Your task to perform on an android device: check the backup settings in the google photos Image 0: 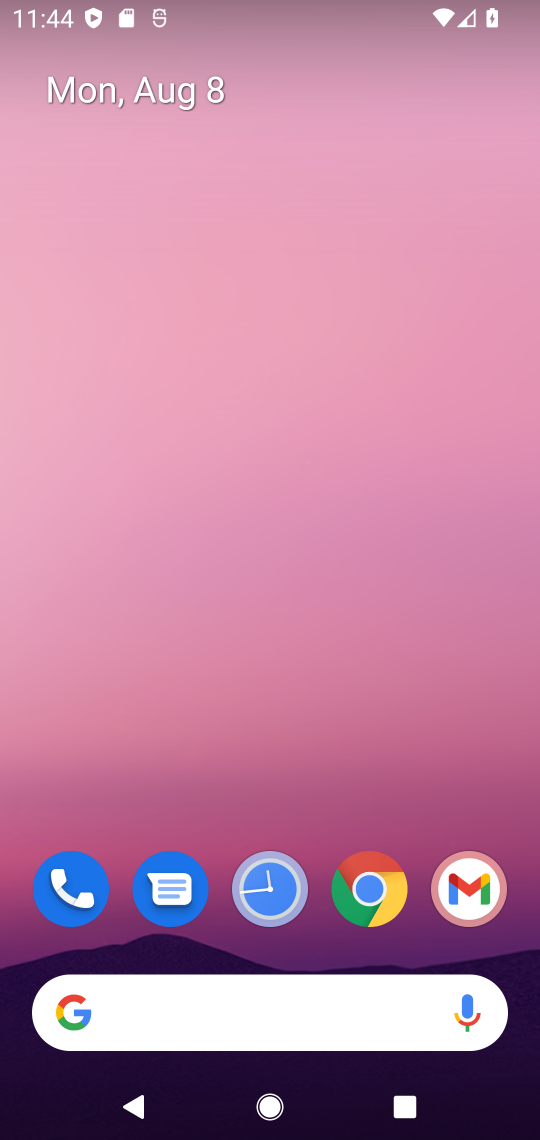
Step 0: drag from (427, 767) to (382, 218)
Your task to perform on an android device: check the backup settings in the google photos Image 1: 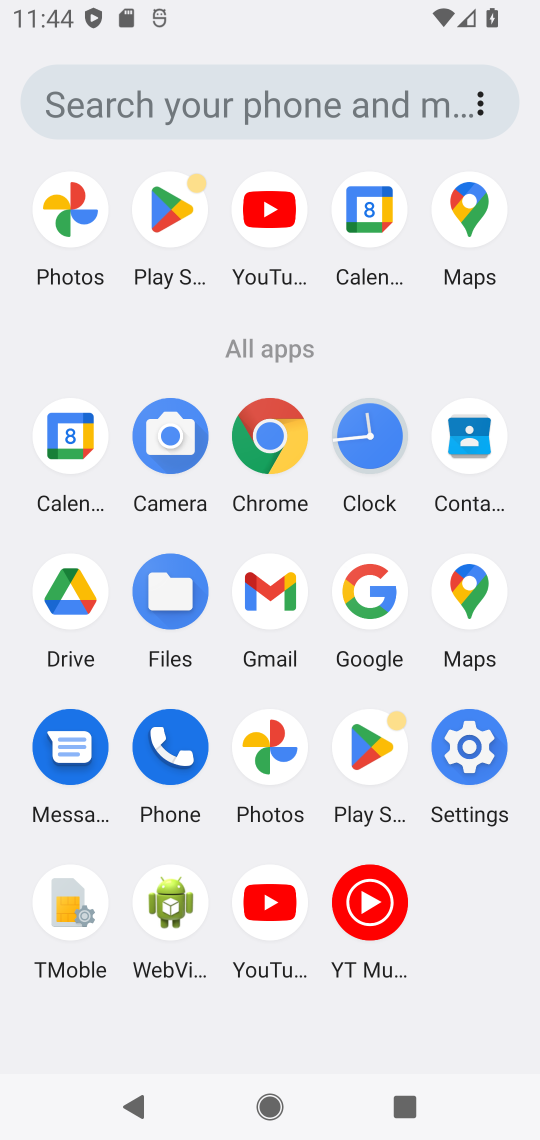
Step 1: click (269, 742)
Your task to perform on an android device: check the backup settings in the google photos Image 2: 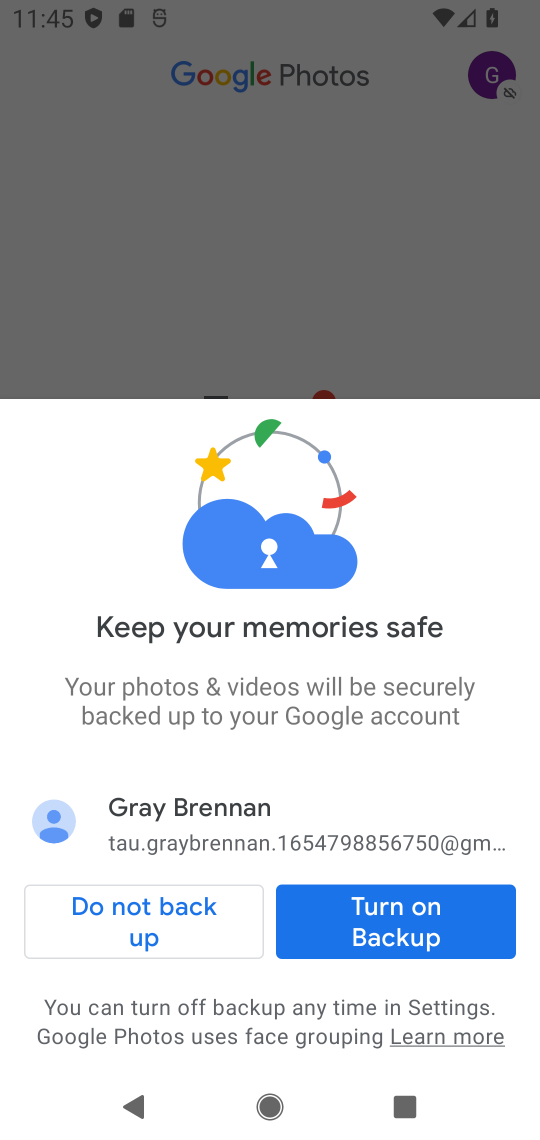
Step 2: click (342, 954)
Your task to perform on an android device: check the backup settings in the google photos Image 3: 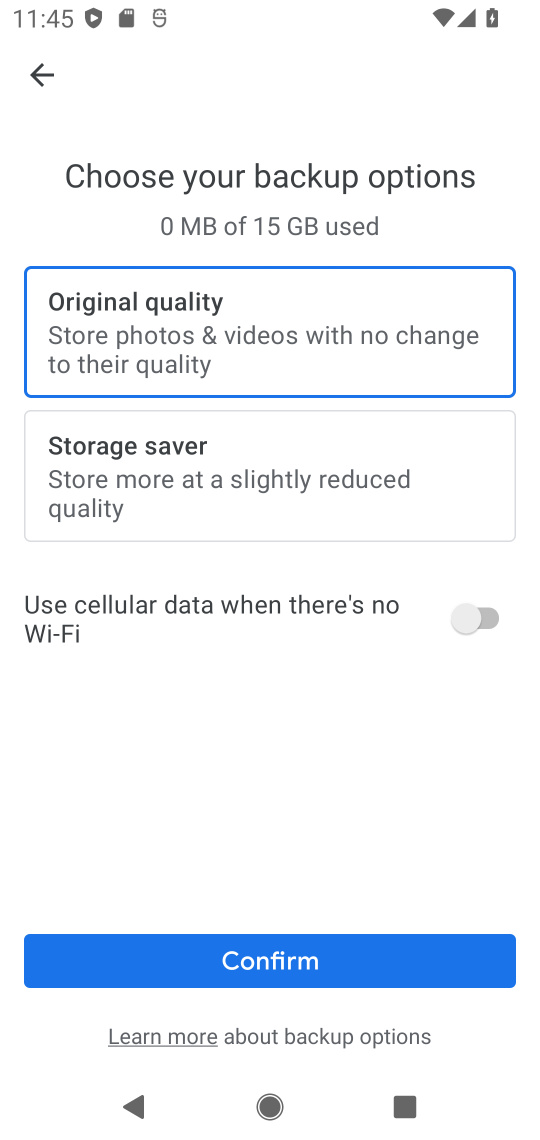
Step 3: click (291, 962)
Your task to perform on an android device: check the backup settings in the google photos Image 4: 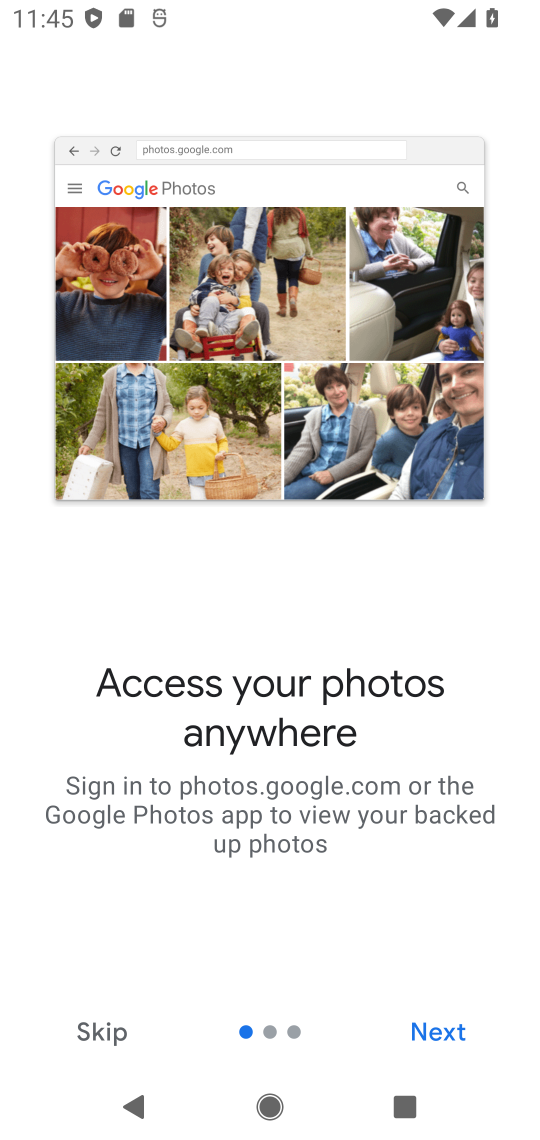
Step 4: click (122, 1022)
Your task to perform on an android device: check the backup settings in the google photos Image 5: 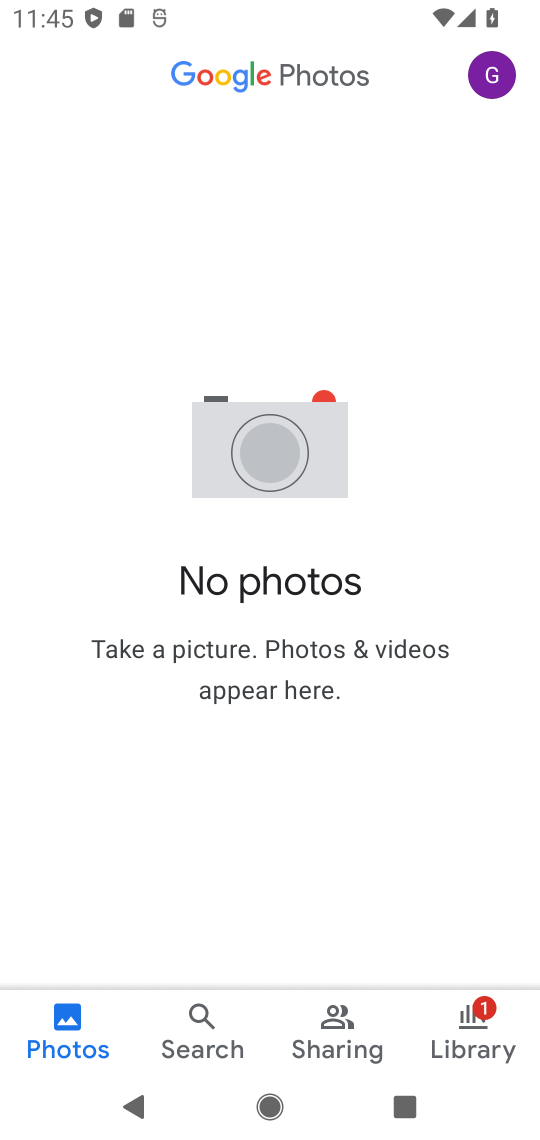
Step 5: click (504, 80)
Your task to perform on an android device: check the backup settings in the google photos Image 6: 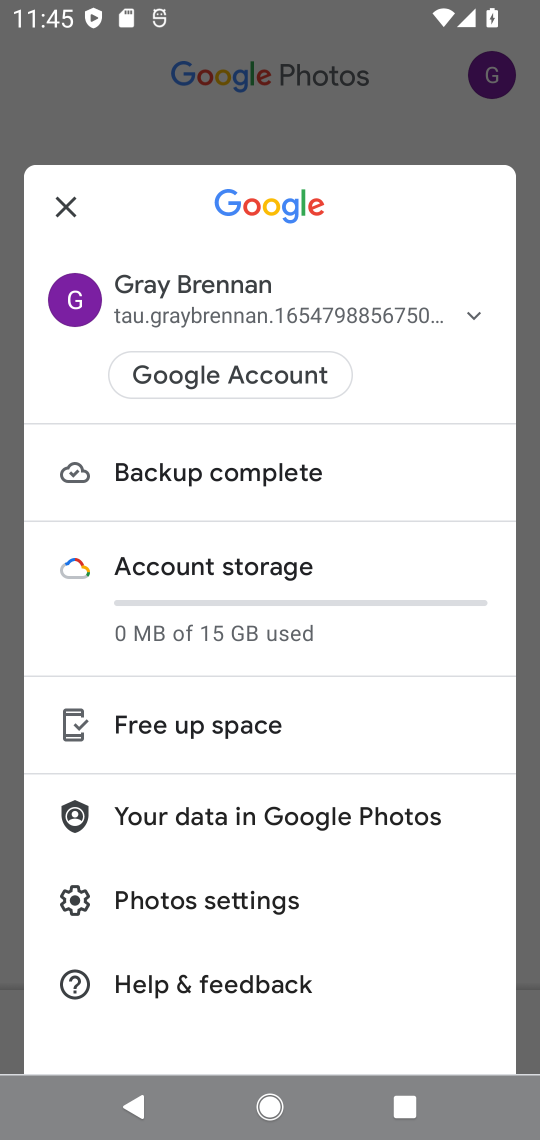
Step 6: click (253, 916)
Your task to perform on an android device: check the backup settings in the google photos Image 7: 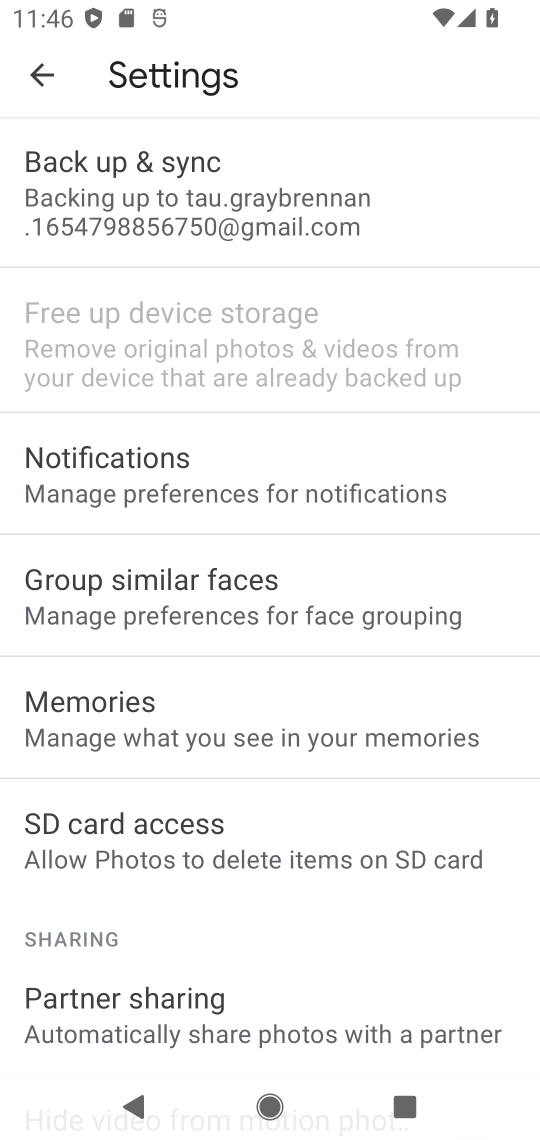
Step 7: drag from (302, 721) to (276, 677)
Your task to perform on an android device: check the backup settings in the google photos Image 8: 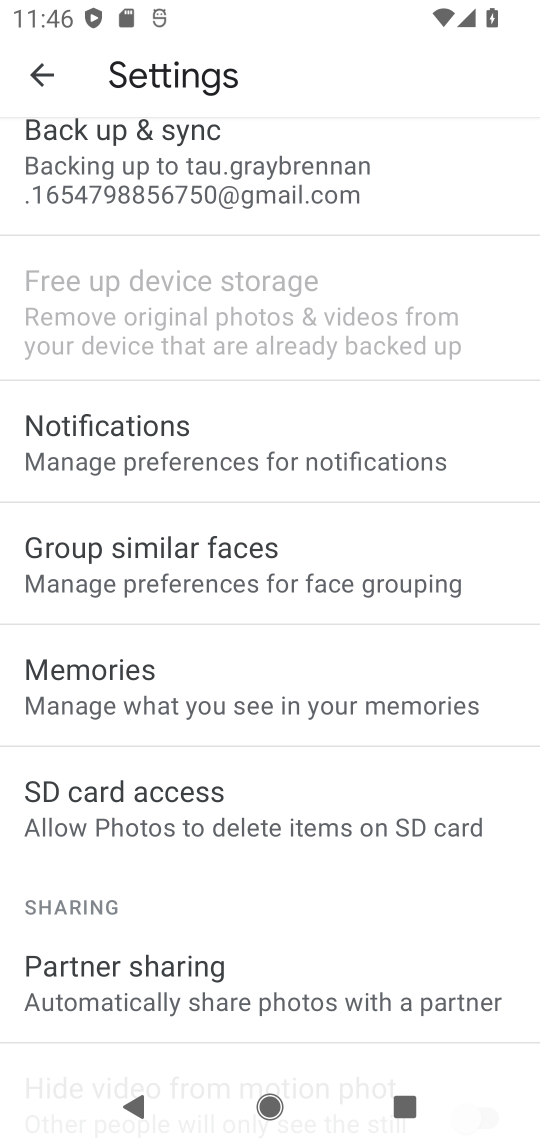
Step 8: click (221, 141)
Your task to perform on an android device: check the backup settings in the google photos Image 9: 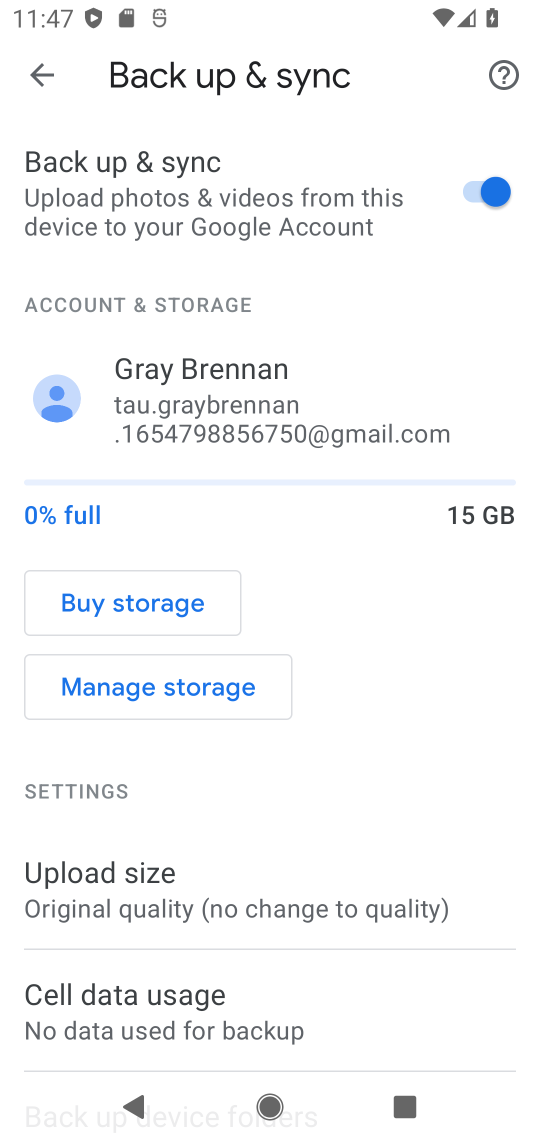
Step 9: task complete